Your task to perform on an android device: turn off picture-in-picture Image 0: 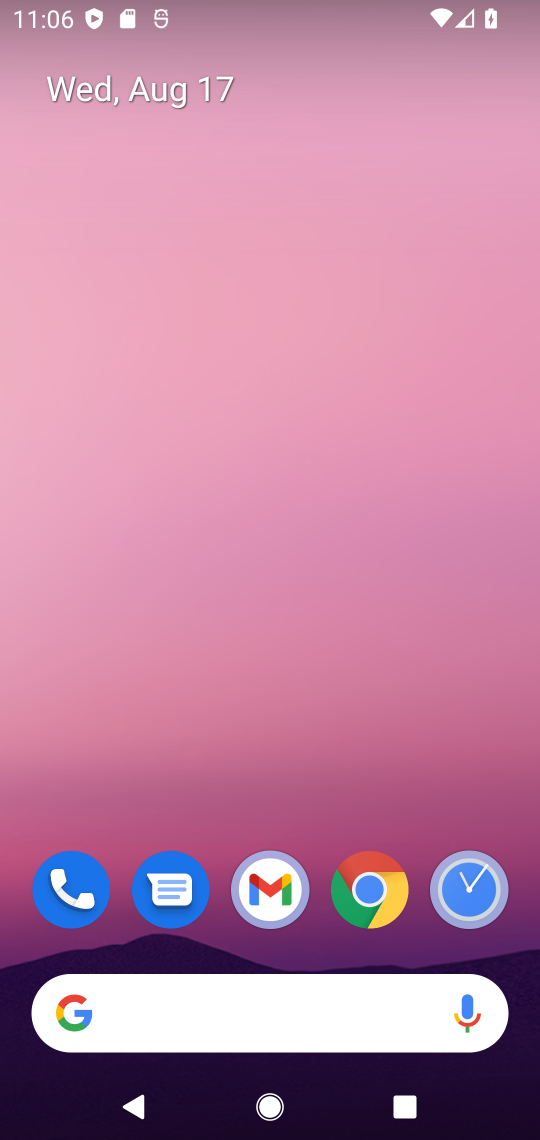
Step 0: click (369, 887)
Your task to perform on an android device: turn off picture-in-picture Image 1: 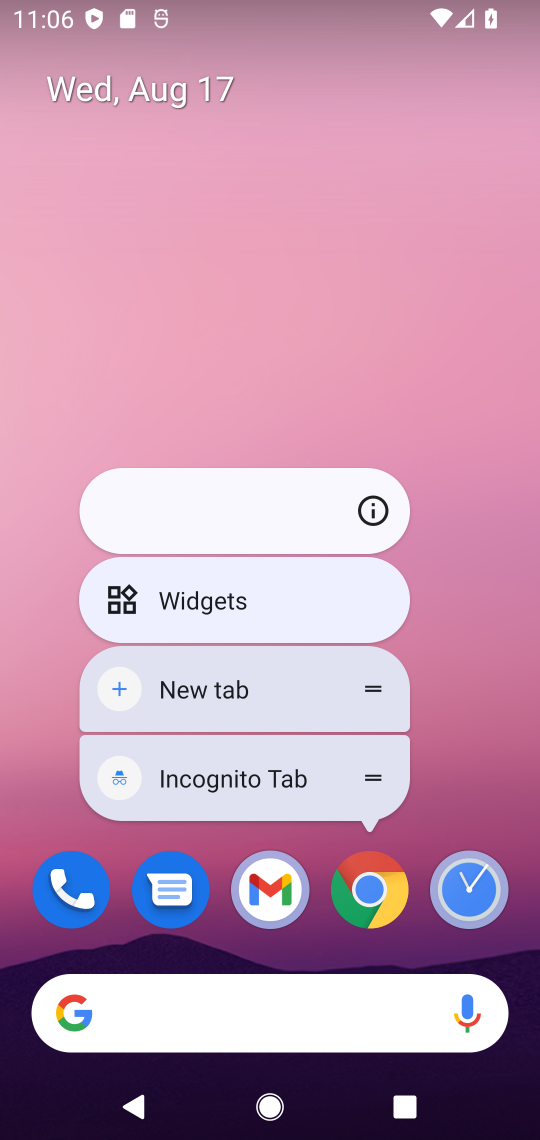
Step 1: click (368, 507)
Your task to perform on an android device: turn off picture-in-picture Image 2: 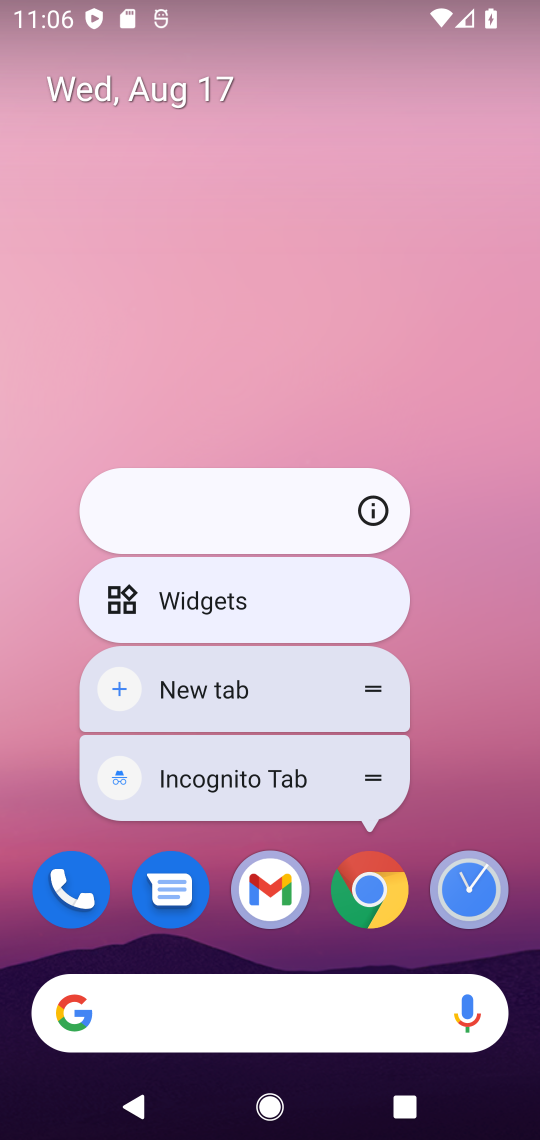
Step 2: click (368, 509)
Your task to perform on an android device: turn off picture-in-picture Image 3: 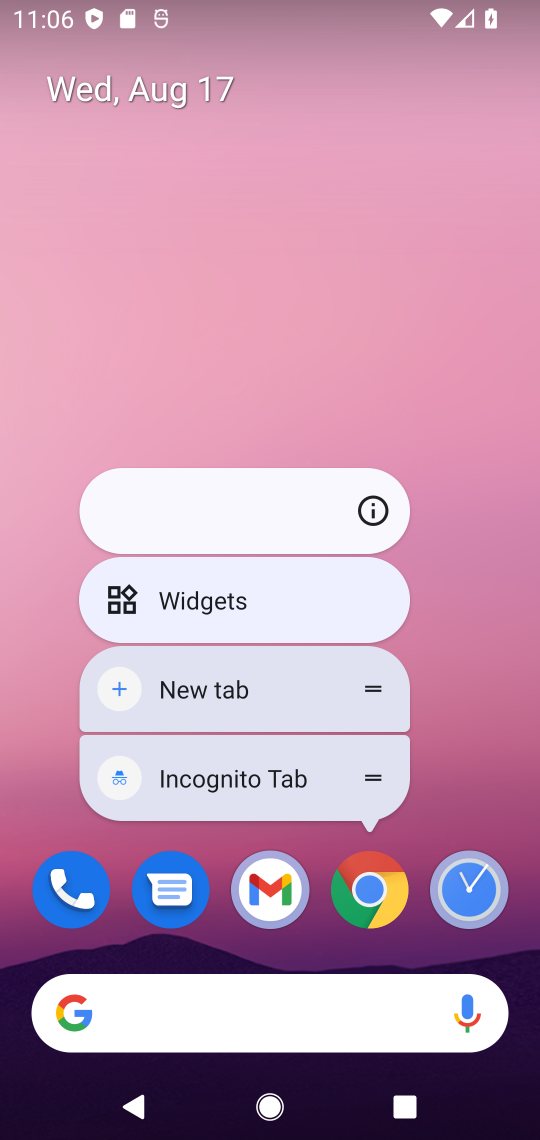
Step 3: click (368, 506)
Your task to perform on an android device: turn off picture-in-picture Image 4: 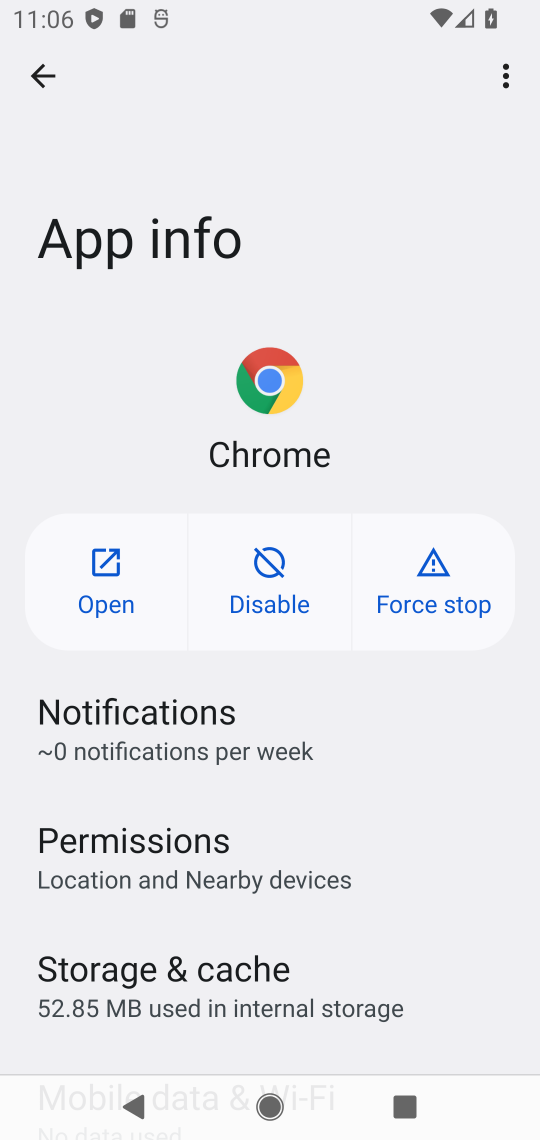
Step 4: drag from (312, 928) to (334, 11)
Your task to perform on an android device: turn off picture-in-picture Image 5: 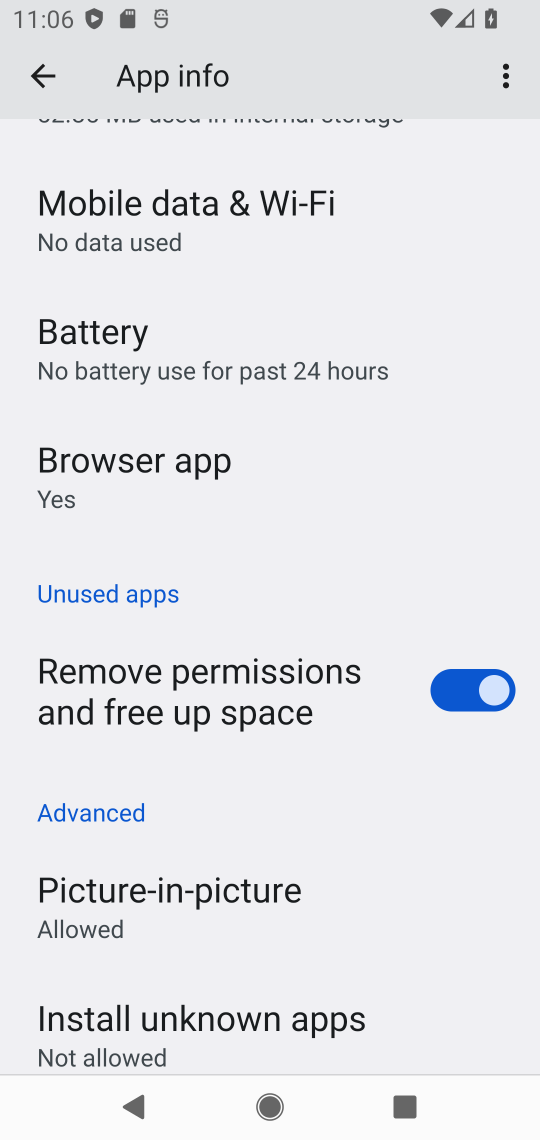
Step 5: click (212, 881)
Your task to perform on an android device: turn off picture-in-picture Image 6: 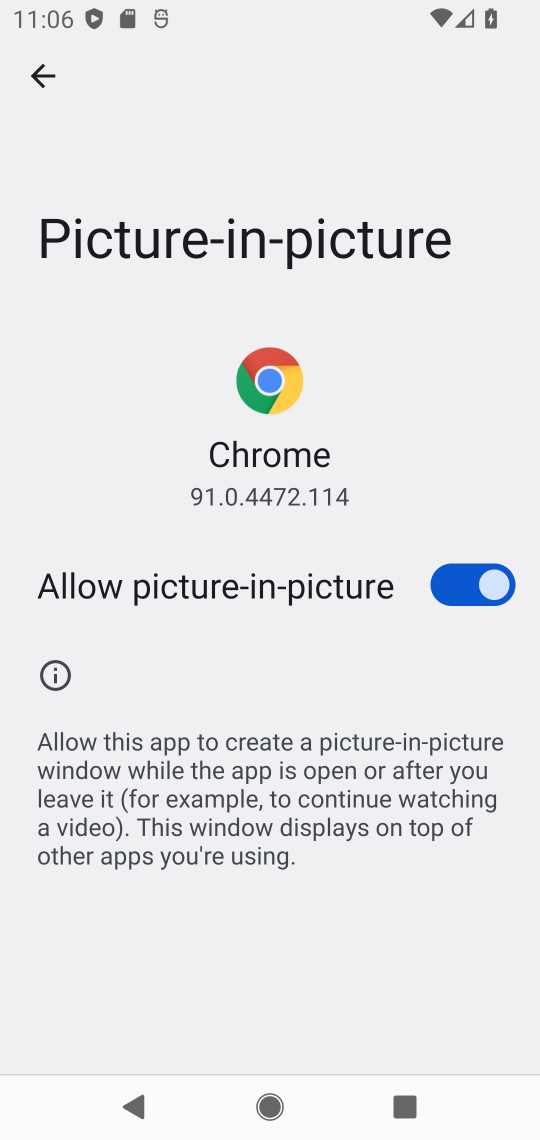
Step 6: click (481, 576)
Your task to perform on an android device: turn off picture-in-picture Image 7: 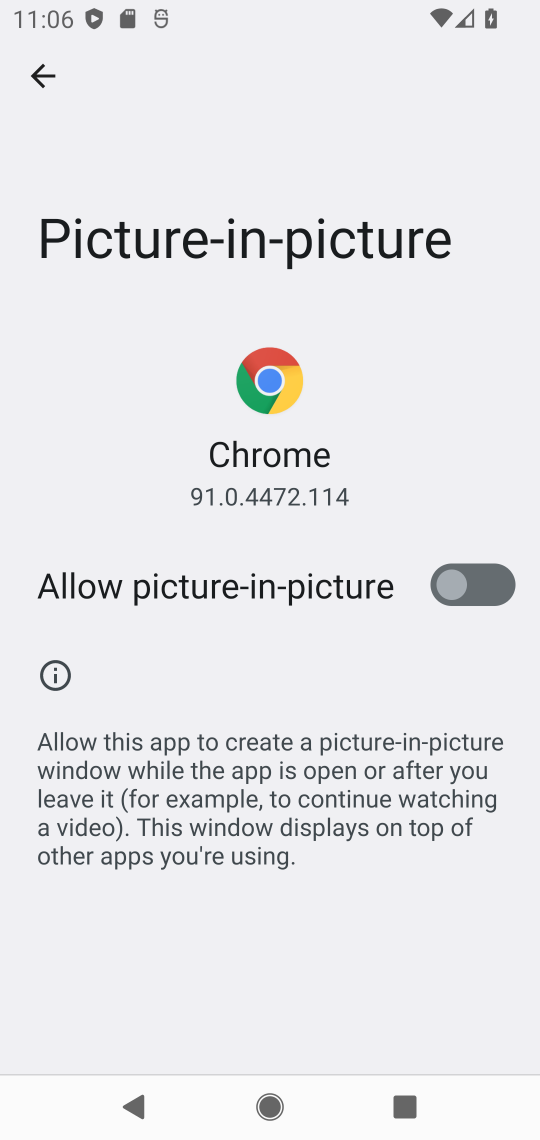
Step 7: task complete